Your task to perform on an android device: allow cookies in the chrome app Image 0: 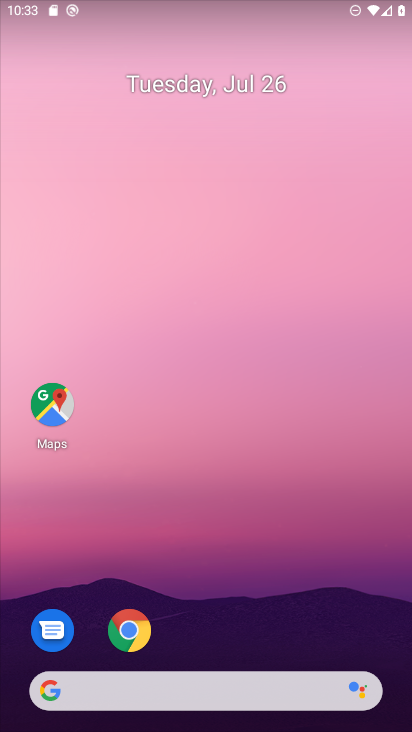
Step 0: click (133, 628)
Your task to perform on an android device: allow cookies in the chrome app Image 1: 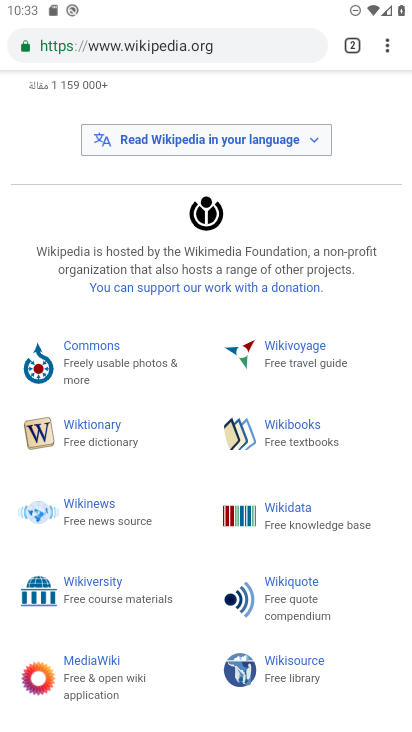
Step 1: click (384, 50)
Your task to perform on an android device: allow cookies in the chrome app Image 2: 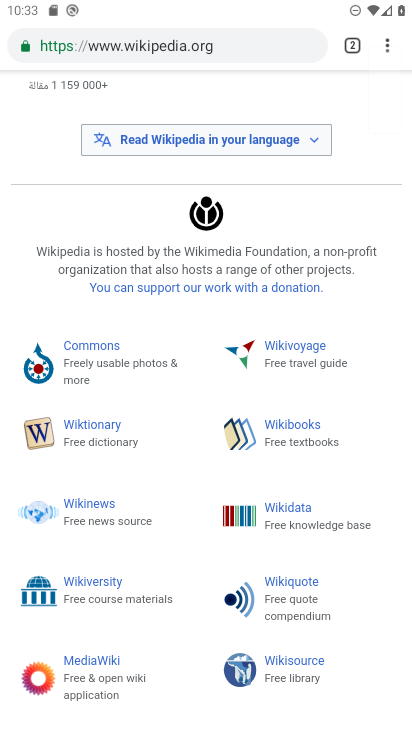
Step 2: click (384, 50)
Your task to perform on an android device: allow cookies in the chrome app Image 3: 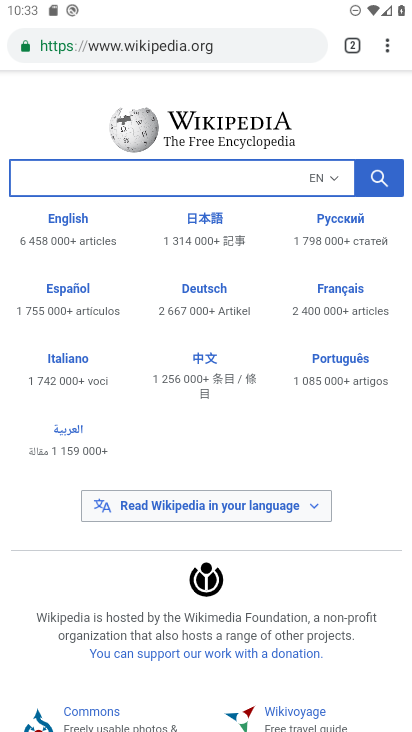
Step 3: click (388, 51)
Your task to perform on an android device: allow cookies in the chrome app Image 4: 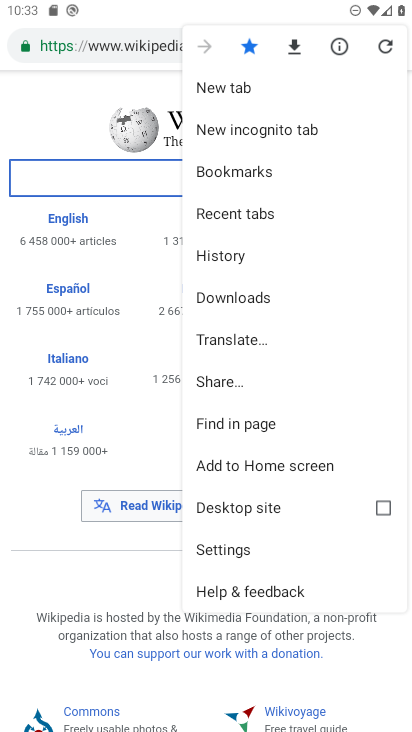
Step 4: click (223, 545)
Your task to perform on an android device: allow cookies in the chrome app Image 5: 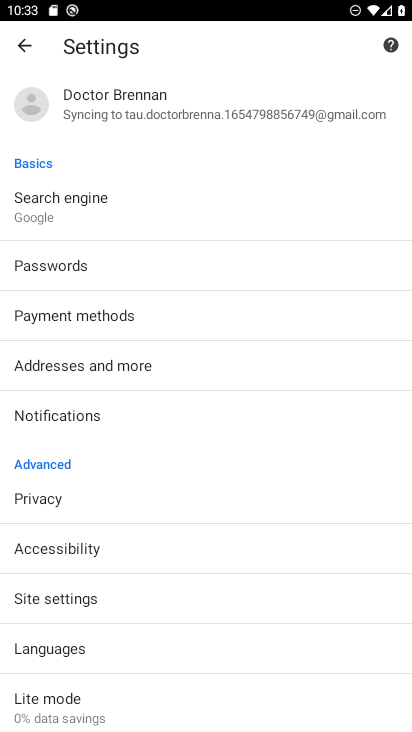
Step 5: click (55, 599)
Your task to perform on an android device: allow cookies in the chrome app Image 6: 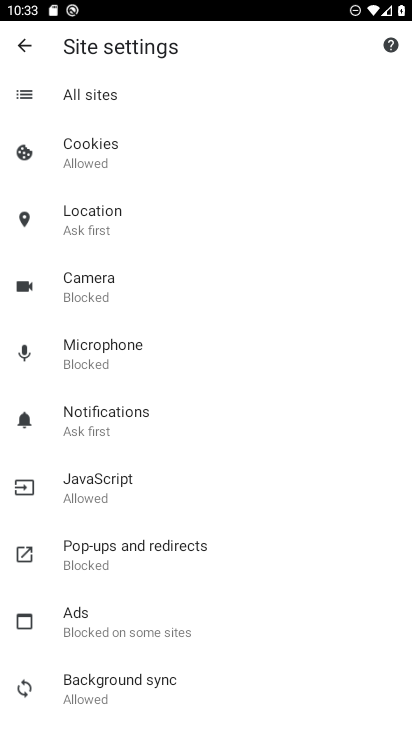
Step 6: click (87, 146)
Your task to perform on an android device: allow cookies in the chrome app Image 7: 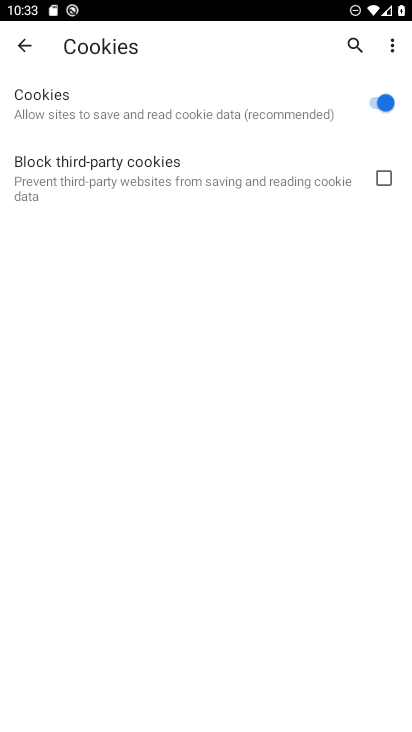
Step 7: task complete